Your task to perform on an android device: turn on the 24-hour format for clock Image 0: 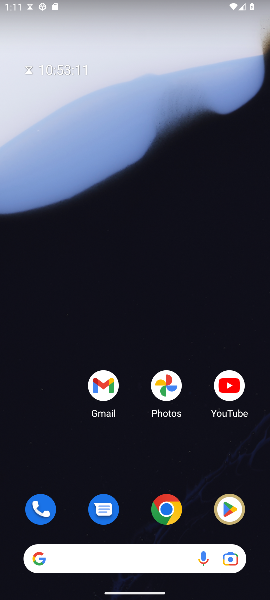
Step 0: press home button
Your task to perform on an android device: turn on the 24-hour format for clock Image 1: 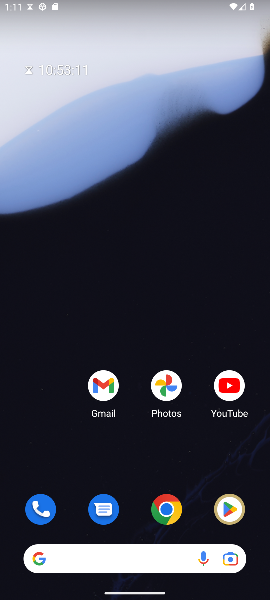
Step 1: drag from (158, 491) to (189, 116)
Your task to perform on an android device: turn on the 24-hour format for clock Image 2: 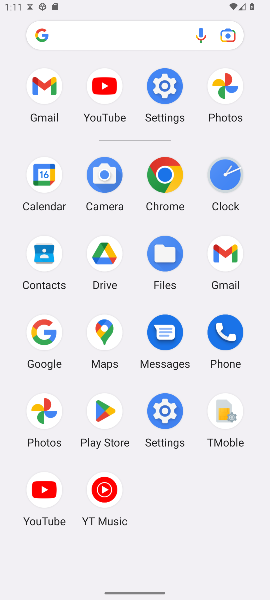
Step 2: click (175, 88)
Your task to perform on an android device: turn on the 24-hour format for clock Image 3: 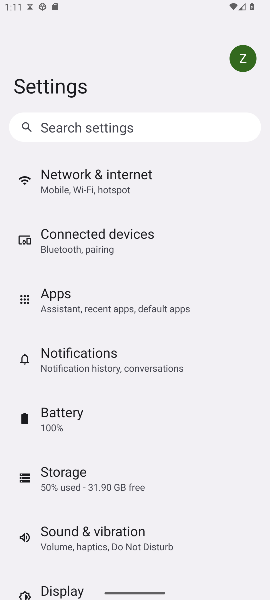
Step 3: drag from (185, 551) to (183, 137)
Your task to perform on an android device: turn on the 24-hour format for clock Image 4: 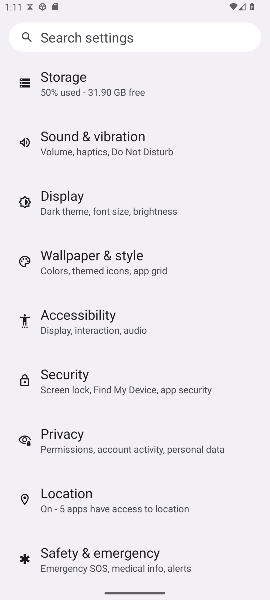
Step 4: drag from (210, 507) to (231, 222)
Your task to perform on an android device: turn on the 24-hour format for clock Image 5: 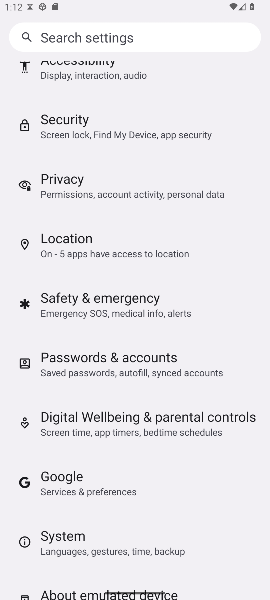
Step 5: click (65, 547)
Your task to perform on an android device: turn on the 24-hour format for clock Image 6: 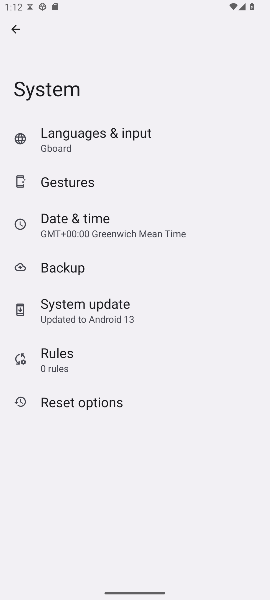
Step 6: click (68, 225)
Your task to perform on an android device: turn on the 24-hour format for clock Image 7: 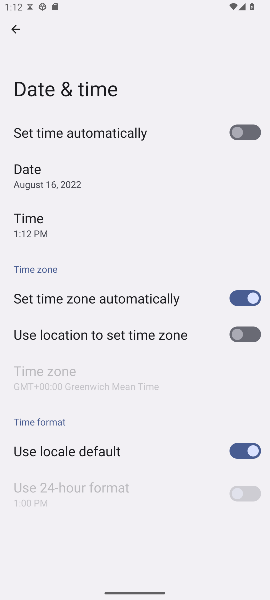
Step 7: click (255, 450)
Your task to perform on an android device: turn on the 24-hour format for clock Image 8: 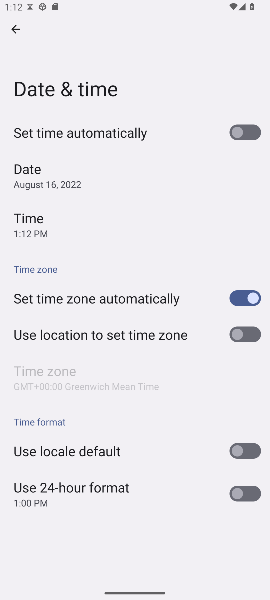
Step 8: click (241, 495)
Your task to perform on an android device: turn on the 24-hour format for clock Image 9: 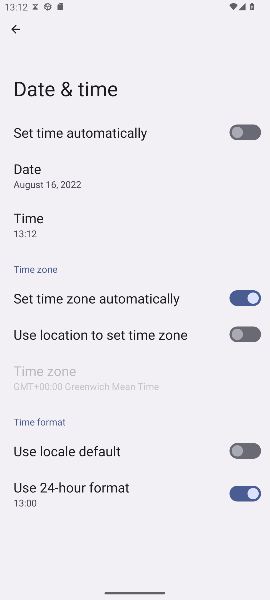
Step 9: task complete